Your task to perform on an android device: Go to Amazon Image 0: 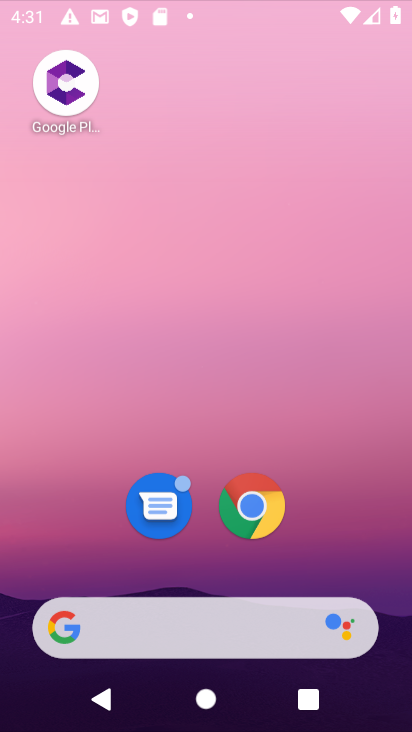
Step 0: press home button
Your task to perform on an android device: Go to Amazon Image 1: 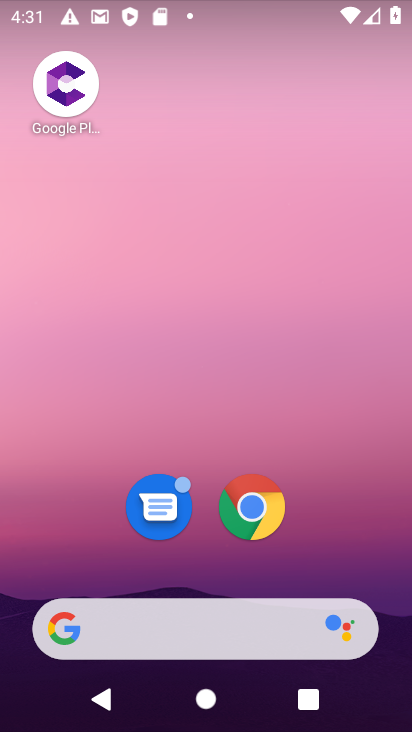
Step 1: click (249, 508)
Your task to perform on an android device: Go to Amazon Image 2: 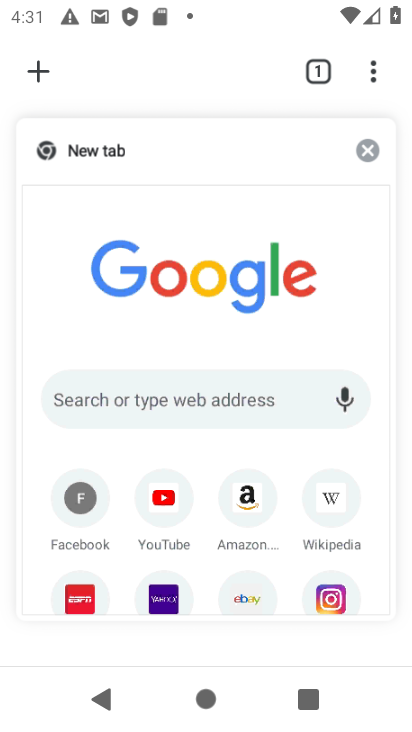
Step 2: click (246, 498)
Your task to perform on an android device: Go to Amazon Image 3: 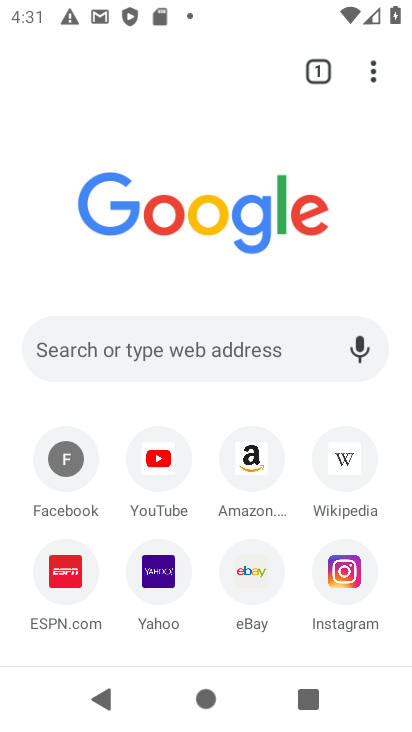
Step 3: click (260, 462)
Your task to perform on an android device: Go to Amazon Image 4: 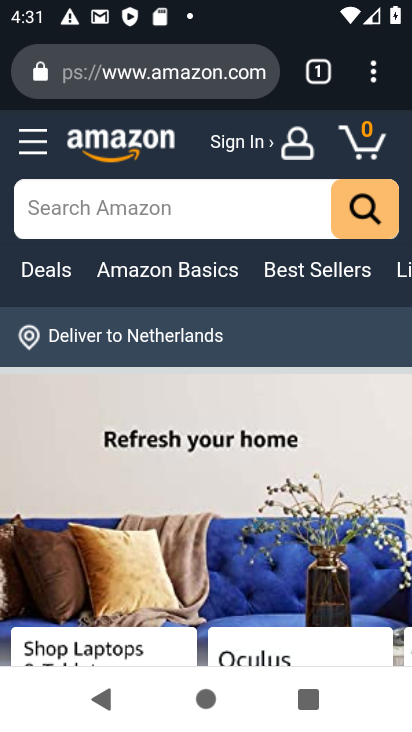
Step 4: task complete